Your task to perform on an android device: Open Amazon Image 0: 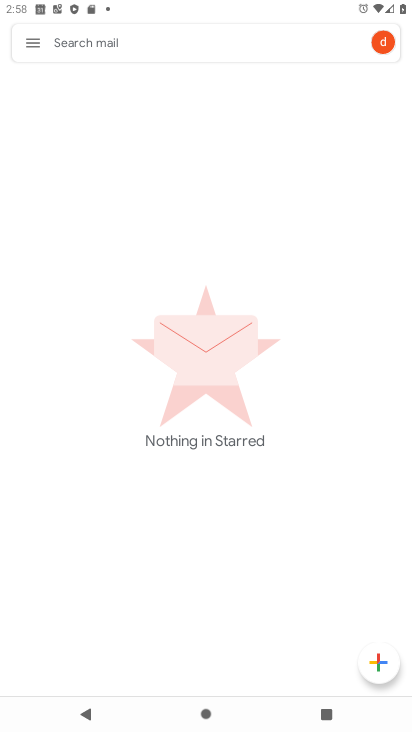
Step 0: press home button
Your task to perform on an android device: Open Amazon Image 1: 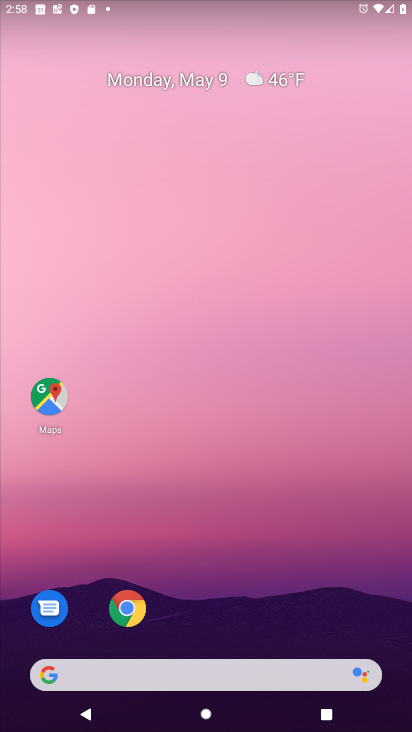
Step 1: click (131, 611)
Your task to perform on an android device: Open Amazon Image 2: 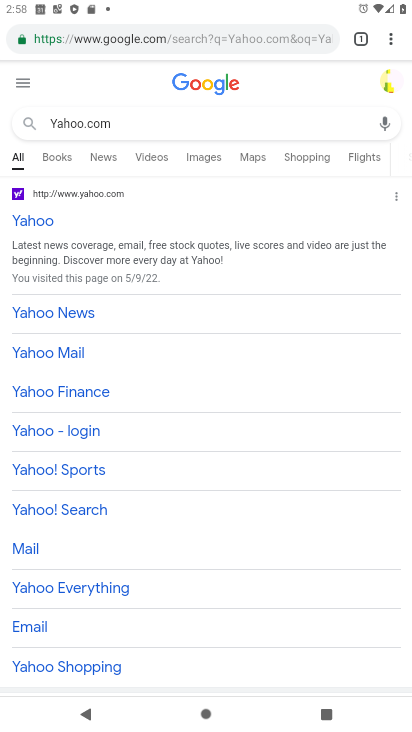
Step 2: click (119, 45)
Your task to perform on an android device: Open Amazon Image 3: 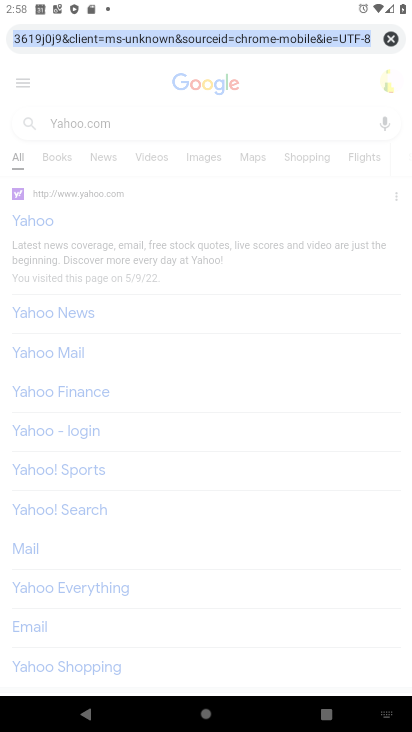
Step 3: type "Amazon"
Your task to perform on an android device: Open Amazon Image 4: 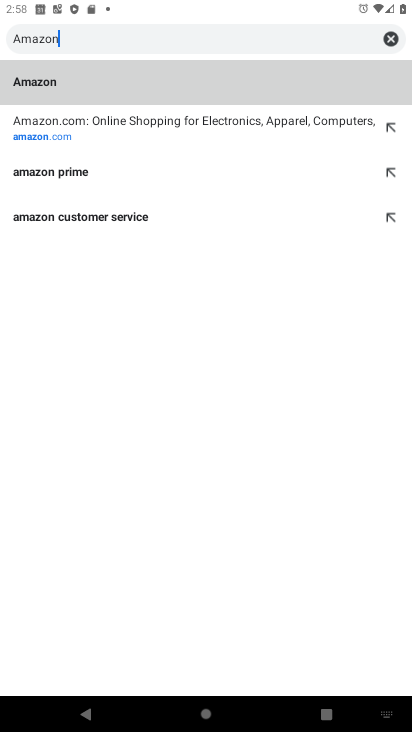
Step 4: click (113, 96)
Your task to perform on an android device: Open Amazon Image 5: 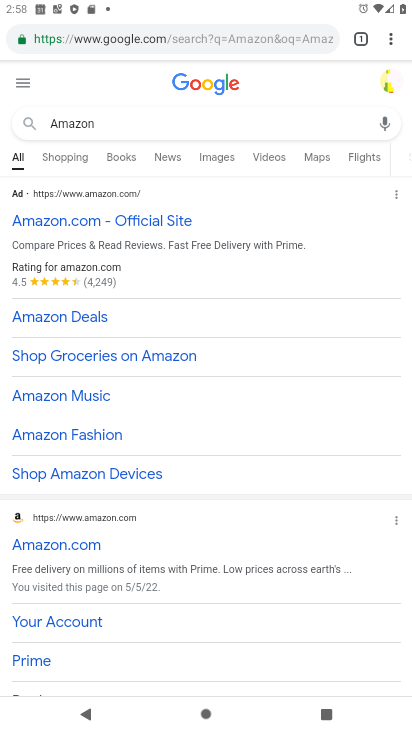
Step 5: task complete